Your task to perform on an android device: set default search engine in the chrome app Image 0: 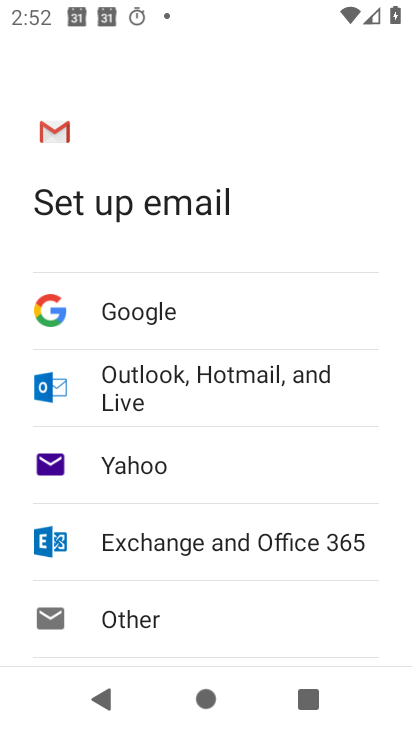
Step 0: press home button
Your task to perform on an android device: set default search engine in the chrome app Image 1: 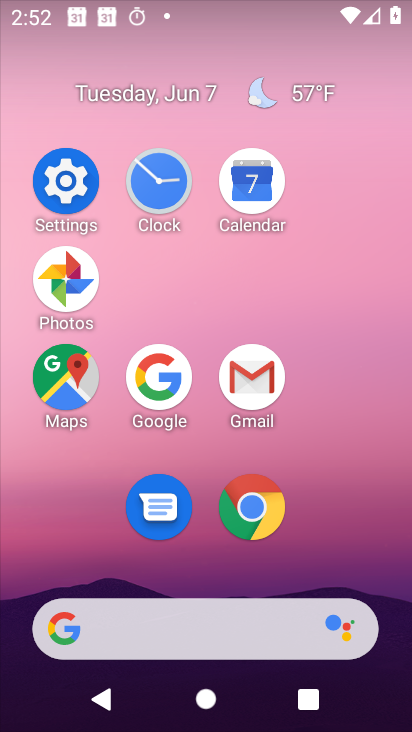
Step 1: click (272, 498)
Your task to perform on an android device: set default search engine in the chrome app Image 2: 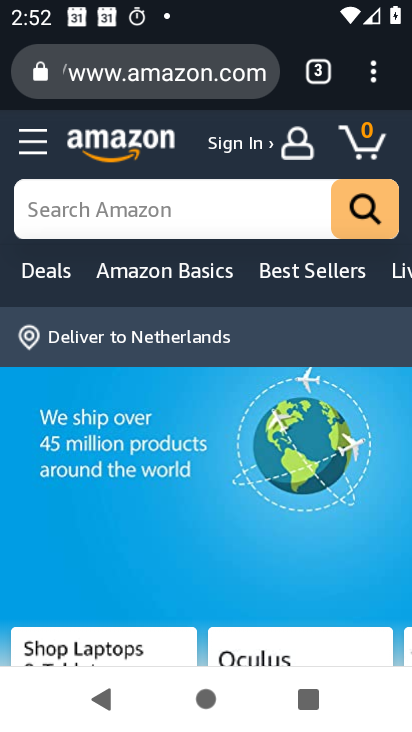
Step 2: click (370, 93)
Your task to perform on an android device: set default search engine in the chrome app Image 3: 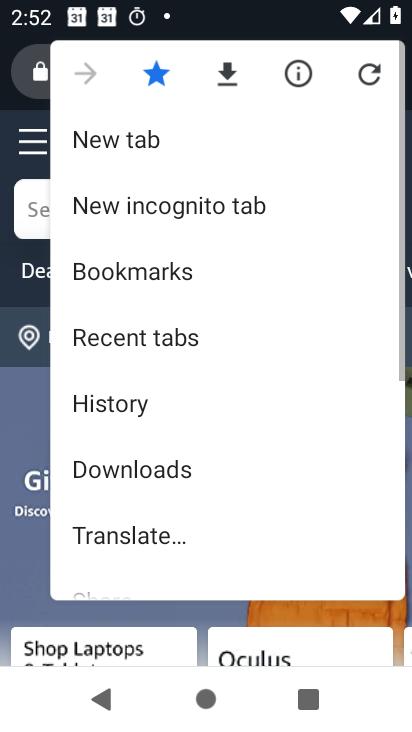
Step 3: drag from (127, 432) to (177, 121)
Your task to perform on an android device: set default search engine in the chrome app Image 4: 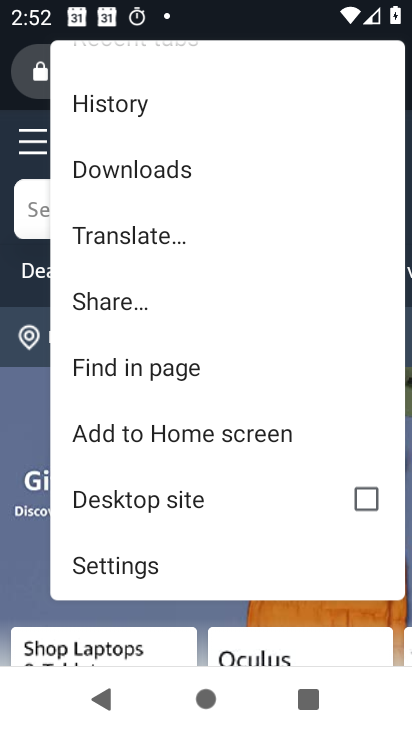
Step 4: click (147, 541)
Your task to perform on an android device: set default search engine in the chrome app Image 5: 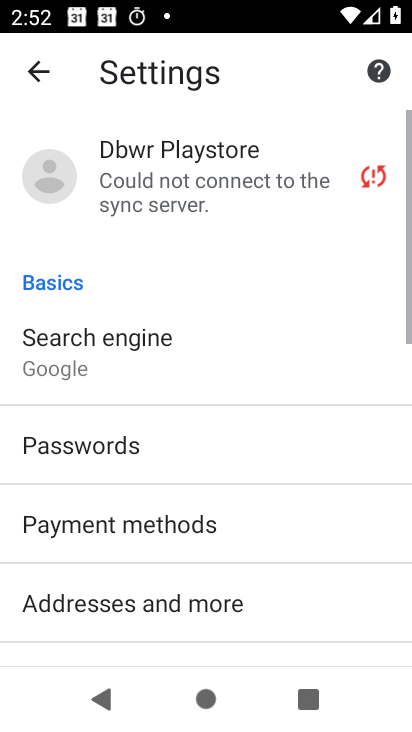
Step 5: click (164, 388)
Your task to perform on an android device: set default search engine in the chrome app Image 6: 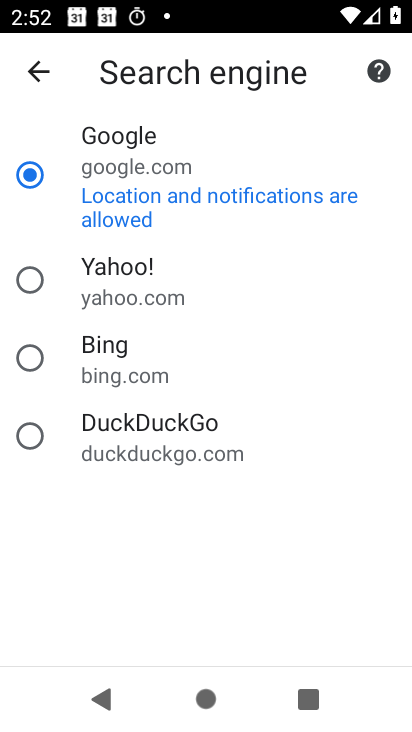
Step 6: task complete